Your task to perform on an android device: Turn on the flashlight Image 0: 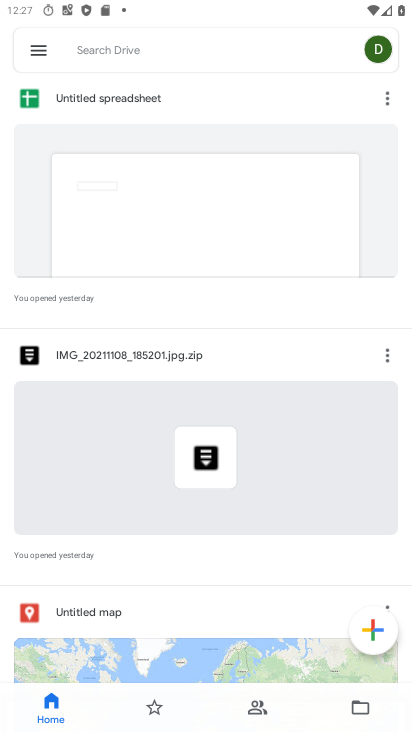
Step 0: press home button
Your task to perform on an android device: Turn on the flashlight Image 1: 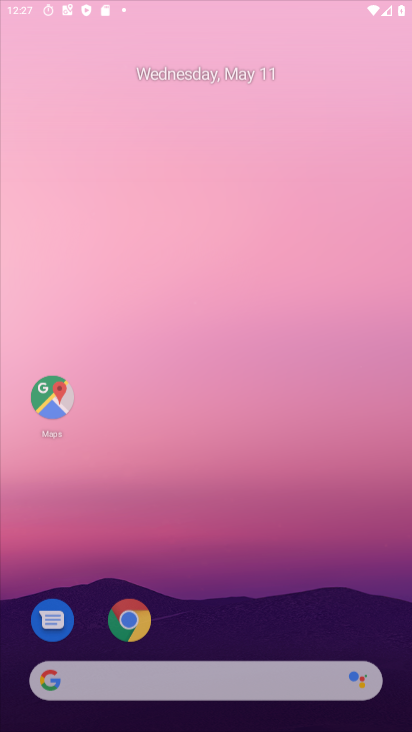
Step 1: task complete